Your task to perform on an android device: Set the phone to "Do not disturb". Image 0: 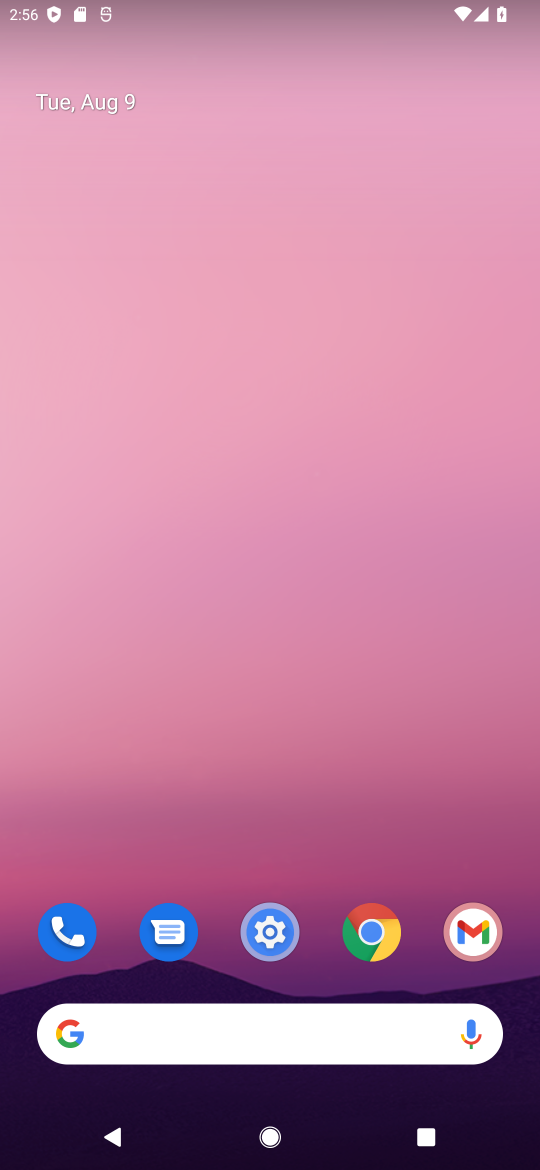
Step 0: click (284, 923)
Your task to perform on an android device: Set the phone to "Do not disturb". Image 1: 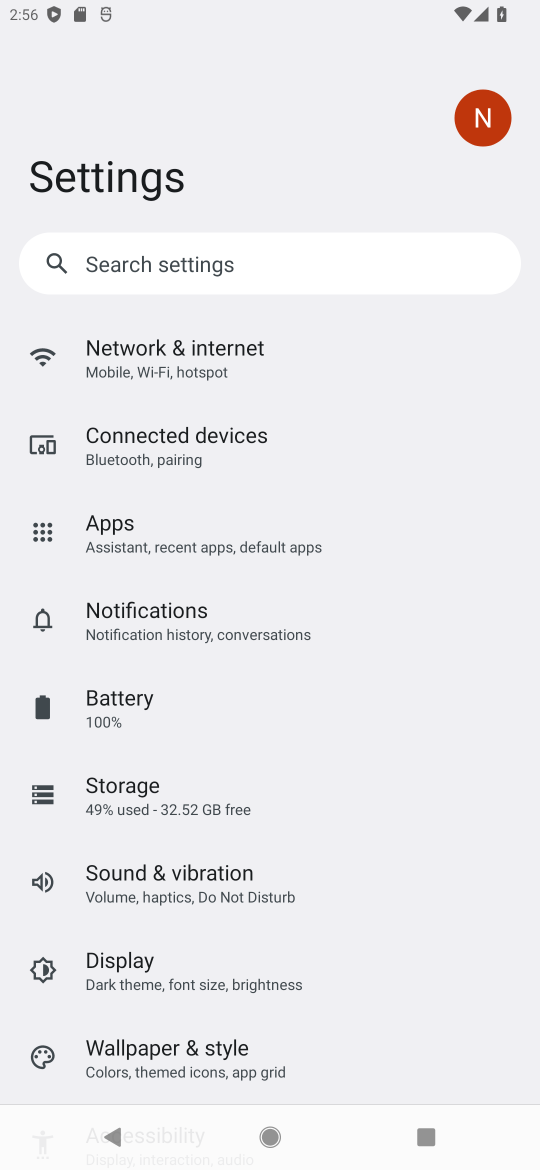
Step 1: click (213, 881)
Your task to perform on an android device: Set the phone to "Do not disturb". Image 2: 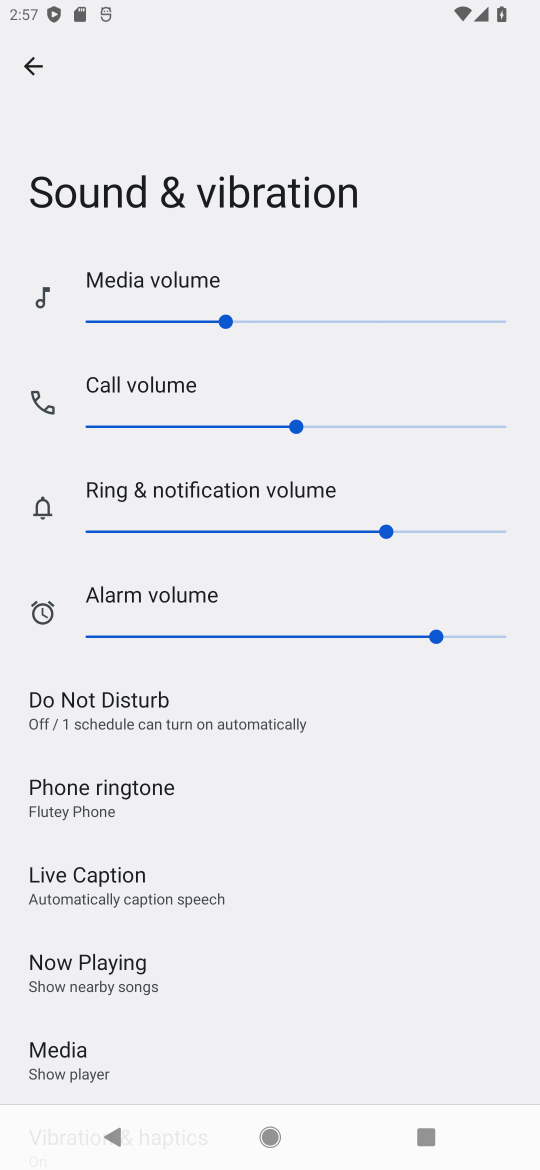
Step 2: click (143, 710)
Your task to perform on an android device: Set the phone to "Do not disturb". Image 3: 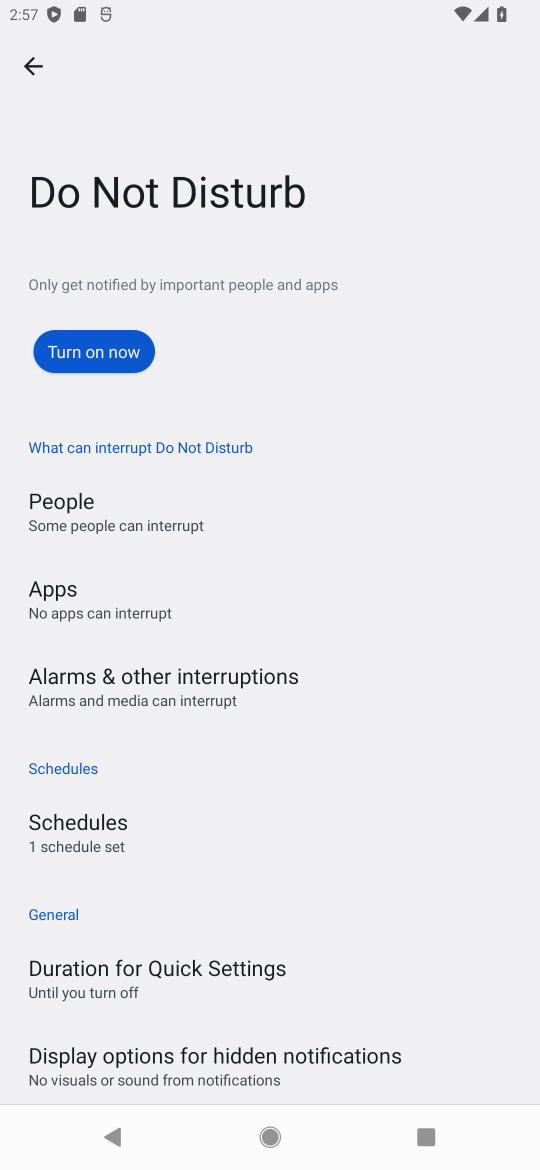
Step 3: click (75, 331)
Your task to perform on an android device: Set the phone to "Do not disturb". Image 4: 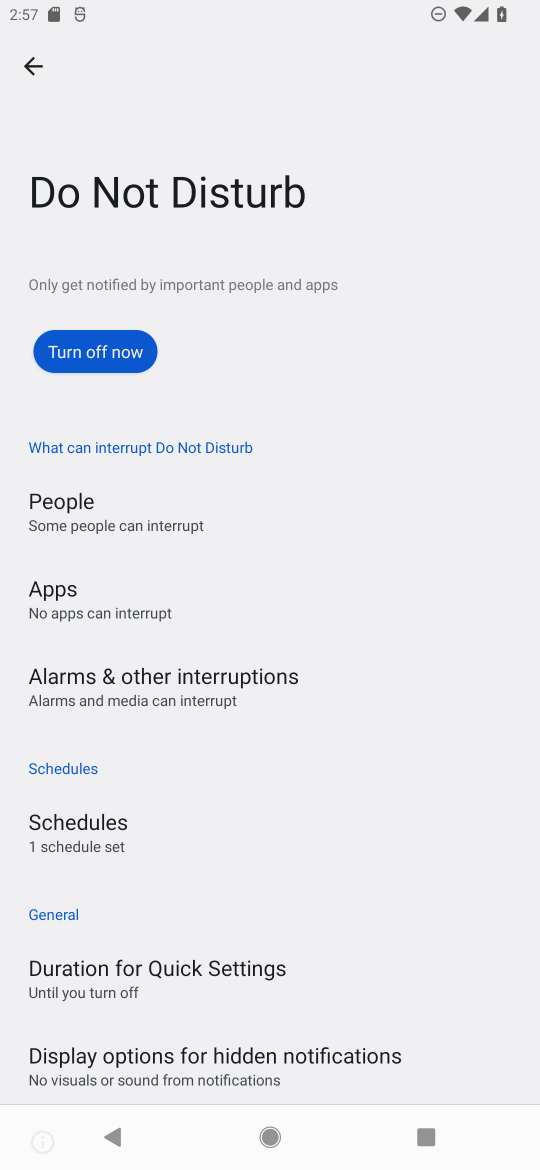
Step 4: task complete